Your task to perform on an android device: Search for Mexican restaurants on Maps Image 0: 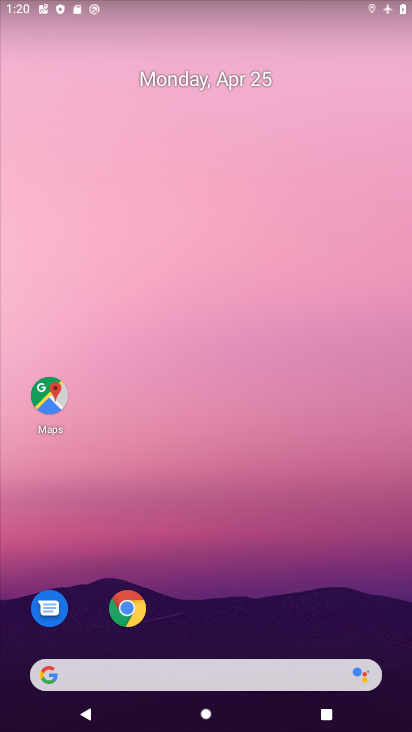
Step 0: click (55, 404)
Your task to perform on an android device: Search for Mexican restaurants on Maps Image 1: 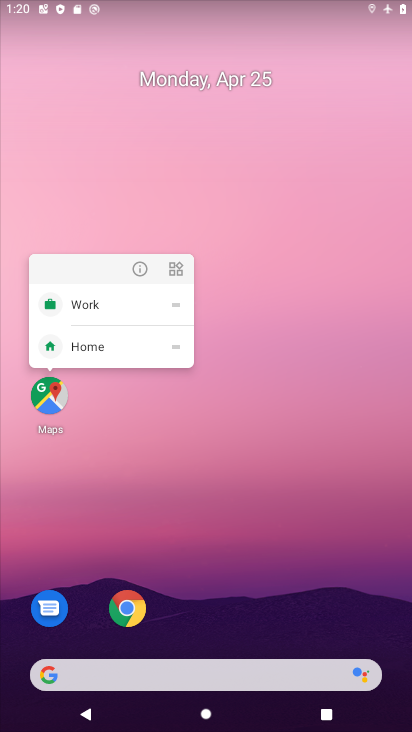
Step 1: click (55, 404)
Your task to perform on an android device: Search for Mexican restaurants on Maps Image 2: 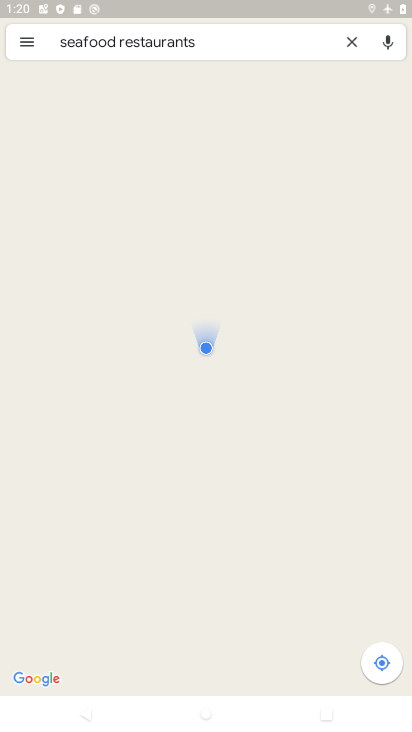
Step 2: click (315, 45)
Your task to perform on an android device: Search for Mexican restaurants on Maps Image 3: 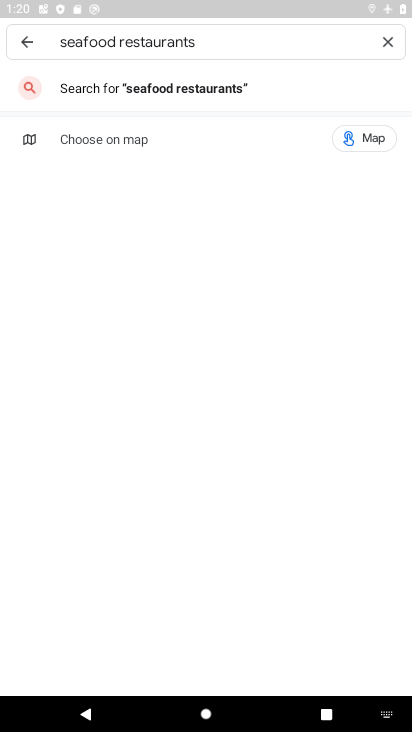
Step 3: click (381, 44)
Your task to perform on an android device: Search for Mexican restaurants on Maps Image 4: 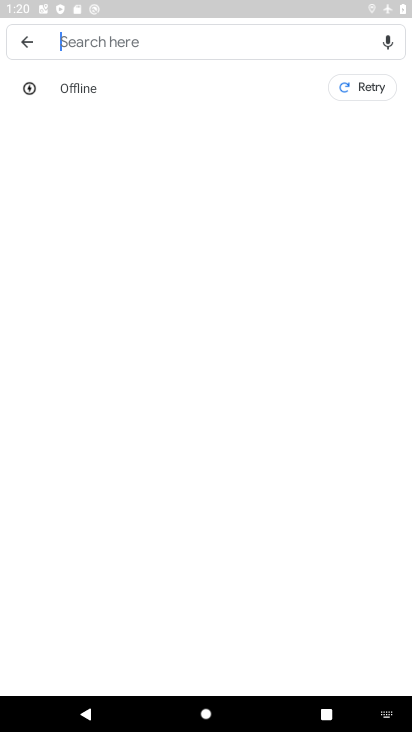
Step 4: click (289, 48)
Your task to perform on an android device: Search for Mexican restaurants on Maps Image 5: 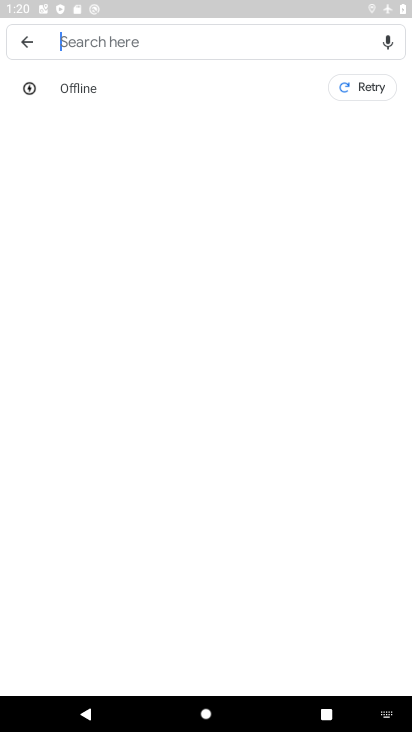
Step 5: click (166, 34)
Your task to perform on an android device: Search for Mexican restaurants on Maps Image 6: 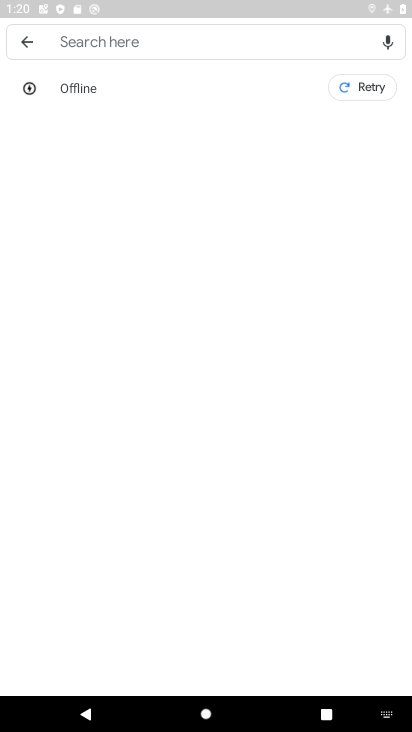
Step 6: type "Mexican restaurants"
Your task to perform on an android device: Search for Mexican restaurants on Maps Image 7: 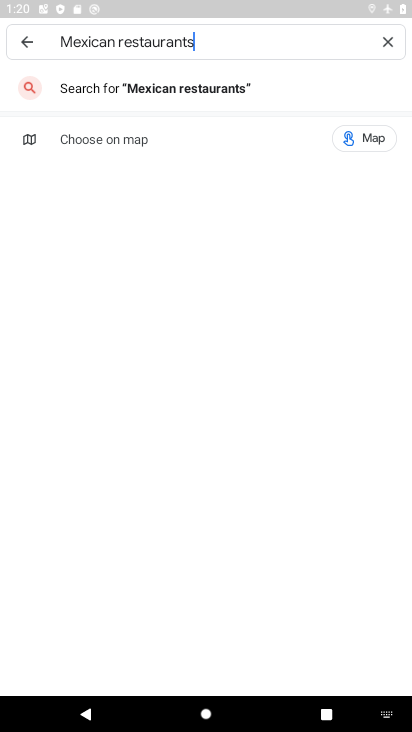
Step 7: press enter
Your task to perform on an android device: Search for Mexican restaurants on Maps Image 8: 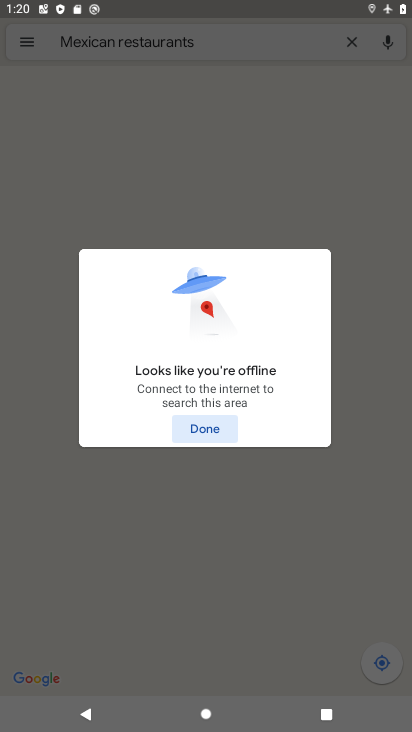
Step 8: task complete